Your task to perform on an android device: Show me the alarms in the clock app Image 0: 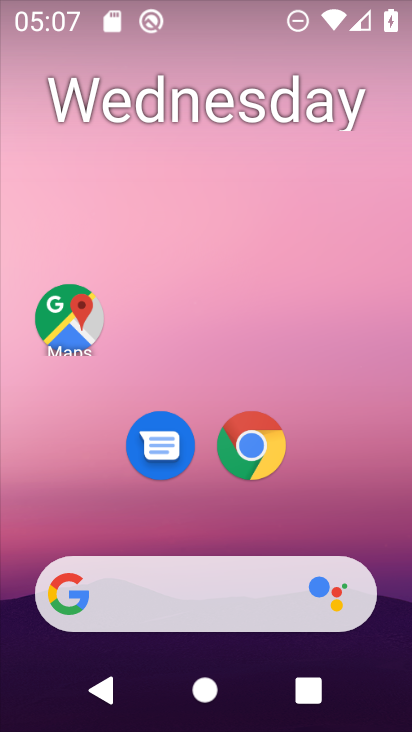
Step 0: drag from (215, 542) to (206, 134)
Your task to perform on an android device: Show me the alarms in the clock app Image 1: 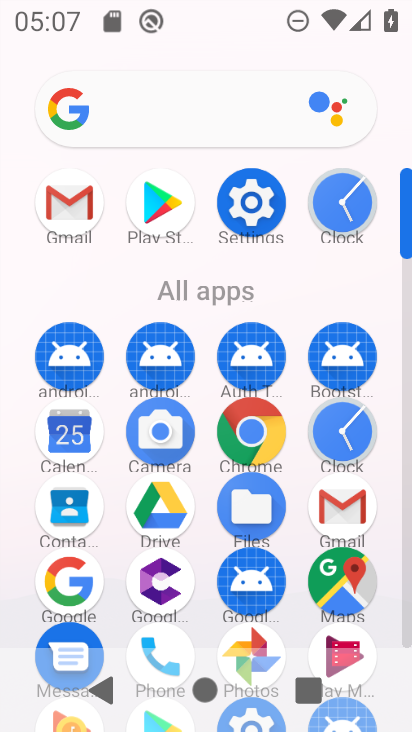
Step 1: click (366, 197)
Your task to perform on an android device: Show me the alarms in the clock app Image 2: 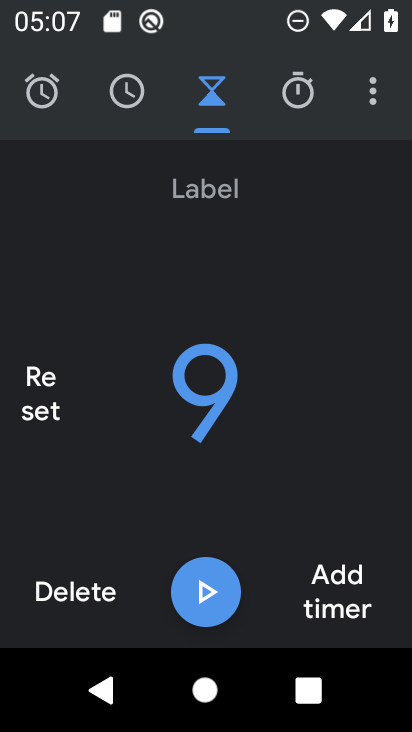
Step 2: click (12, 81)
Your task to perform on an android device: Show me the alarms in the clock app Image 3: 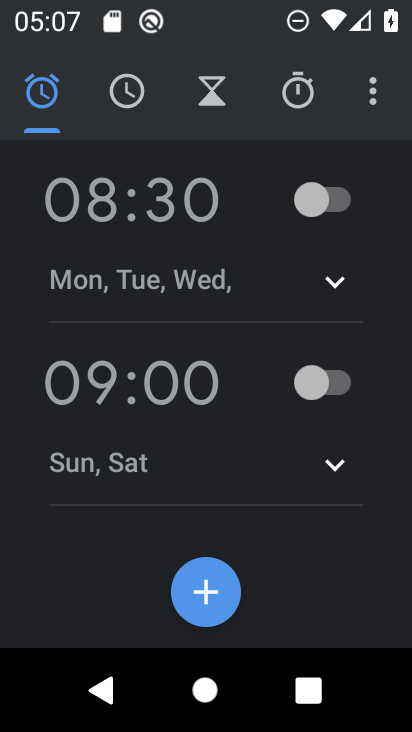
Step 3: click (316, 218)
Your task to perform on an android device: Show me the alarms in the clock app Image 4: 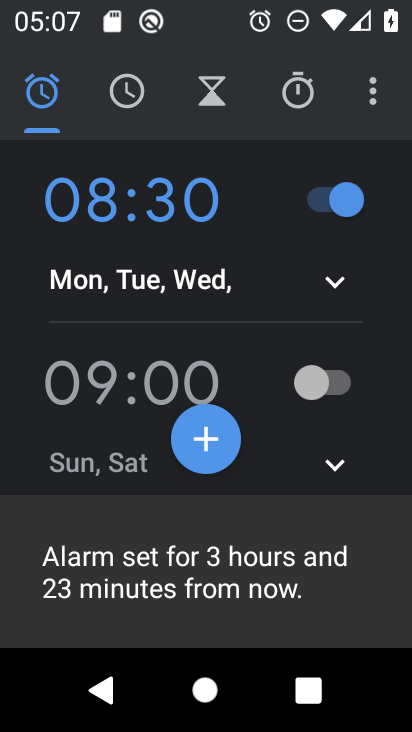
Step 4: task complete